Your task to perform on an android device: install app "Expedia: Hotels, Flights & Car" Image 0: 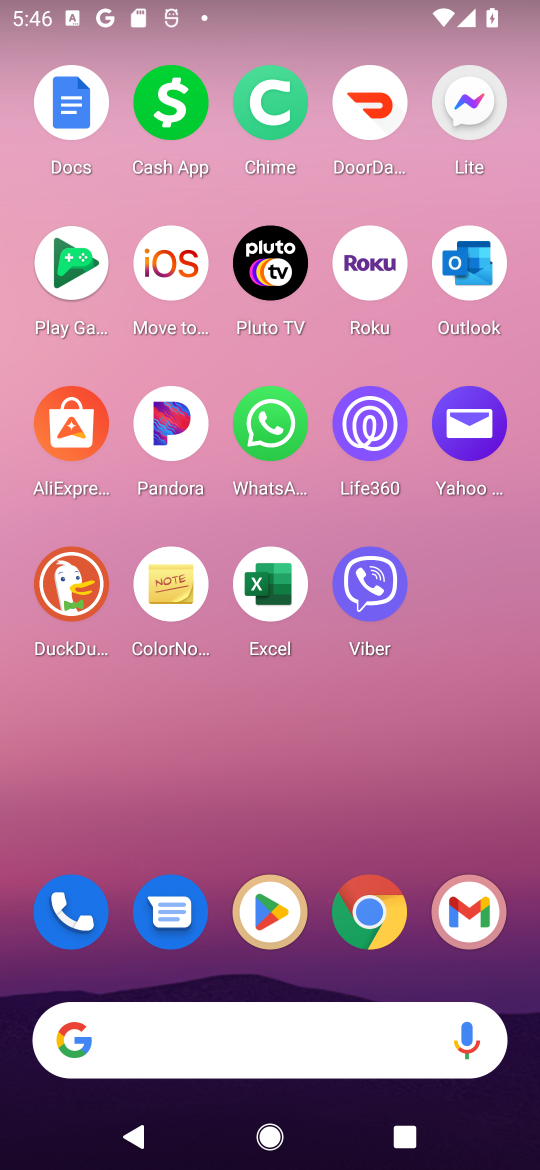
Step 0: click (262, 904)
Your task to perform on an android device: install app "Expedia: Hotels, Flights & Car" Image 1: 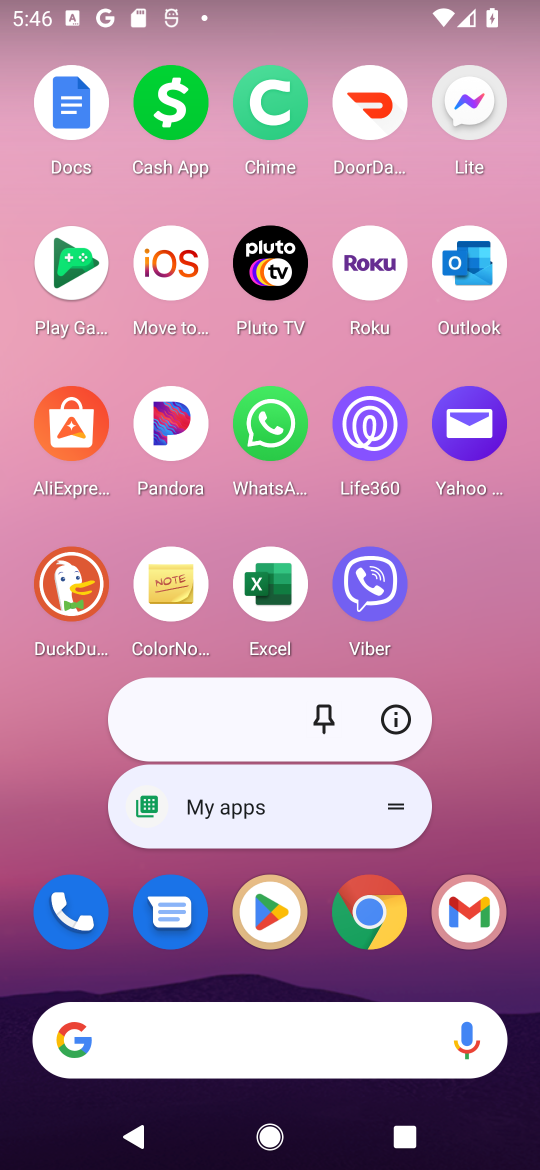
Step 1: click (461, 623)
Your task to perform on an android device: install app "Expedia: Hotels, Flights & Car" Image 2: 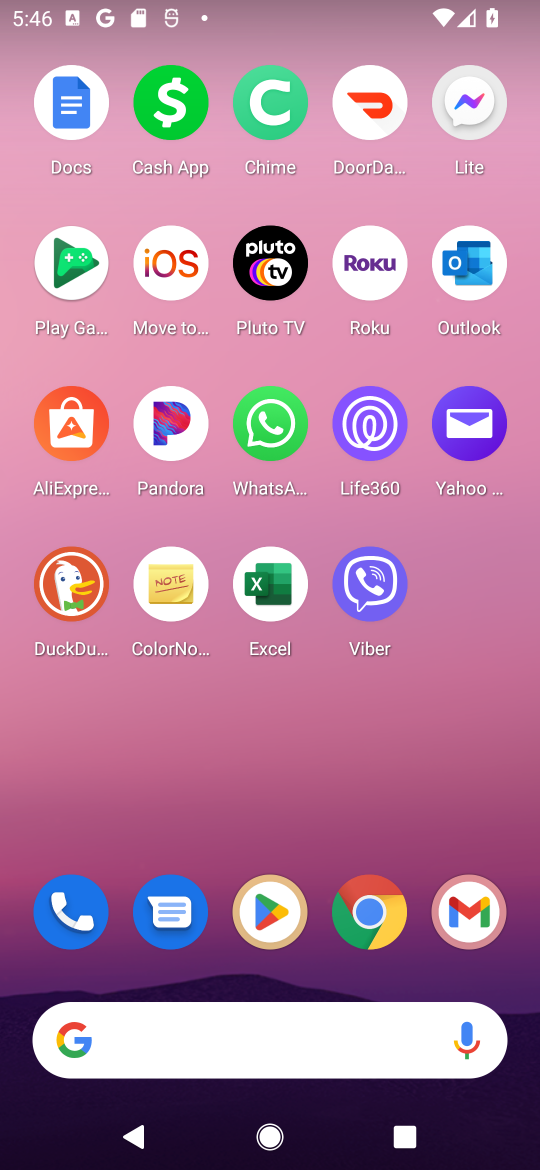
Step 2: click (278, 904)
Your task to perform on an android device: install app "Expedia: Hotels, Flights & Car" Image 3: 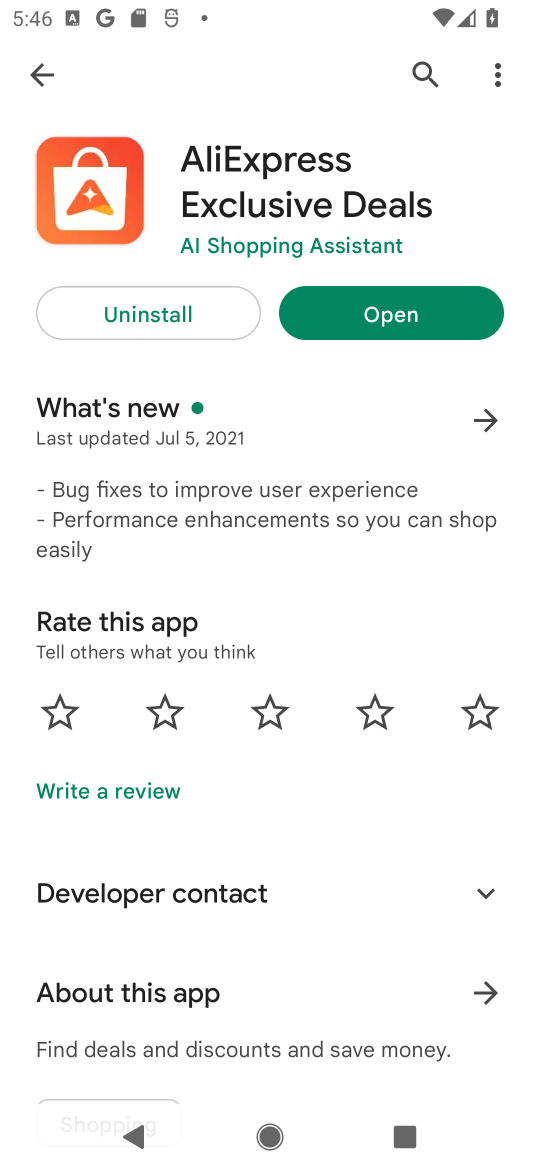
Step 3: click (35, 84)
Your task to perform on an android device: install app "Expedia: Hotels, Flights & Car" Image 4: 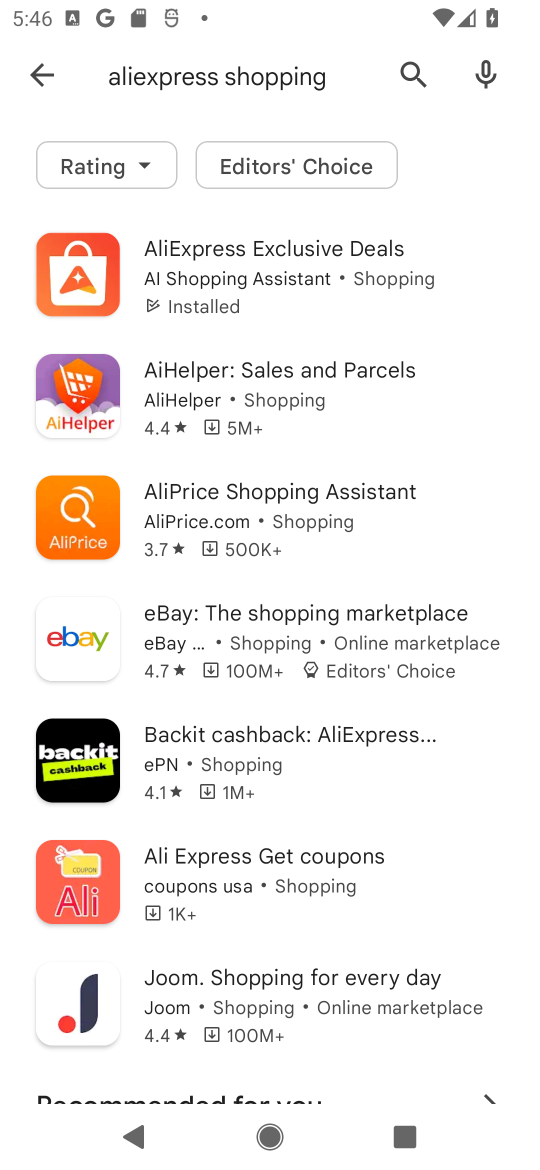
Step 4: click (44, 68)
Your task to perform on an android device: install app "Expedia: Hotels, Flights & Car" Image 5: 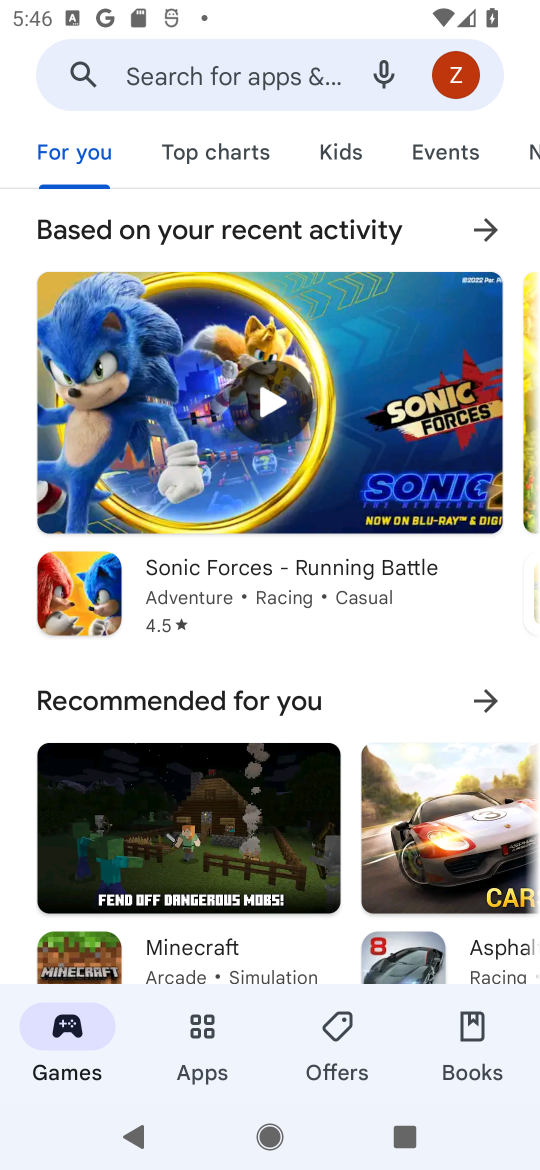
Step 5: click (212, 79)
Your task to perform on an android device: install app "Expedia: Hotels, Flights & Car" Image 6: 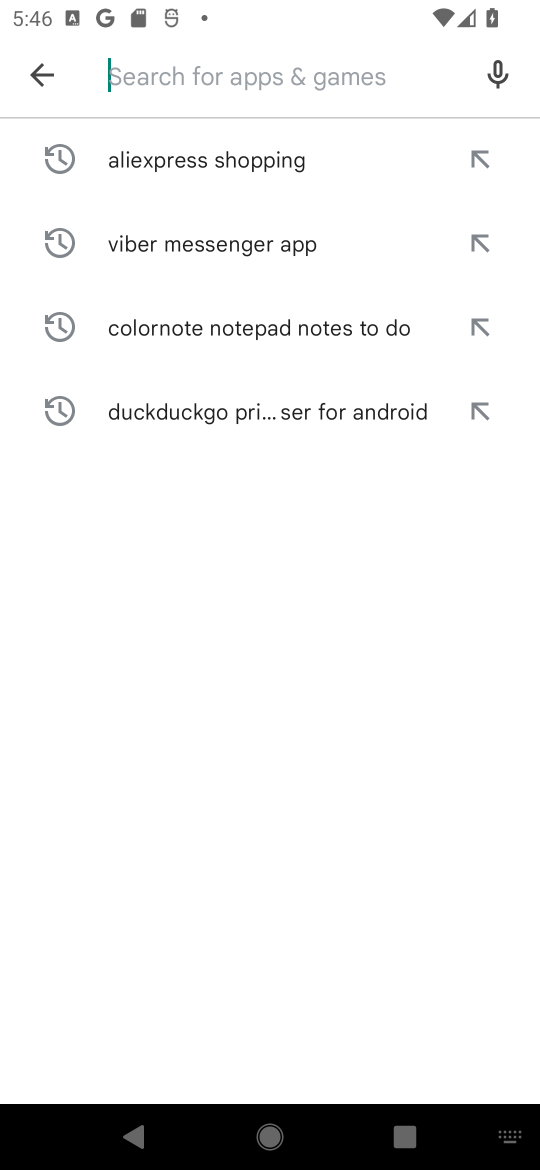
Step 6: type "Expedia: Hotels, Flights & Car "
Your task to perform on an android device: install app "Expedia: Hotels, Flights & Car" Image 7: 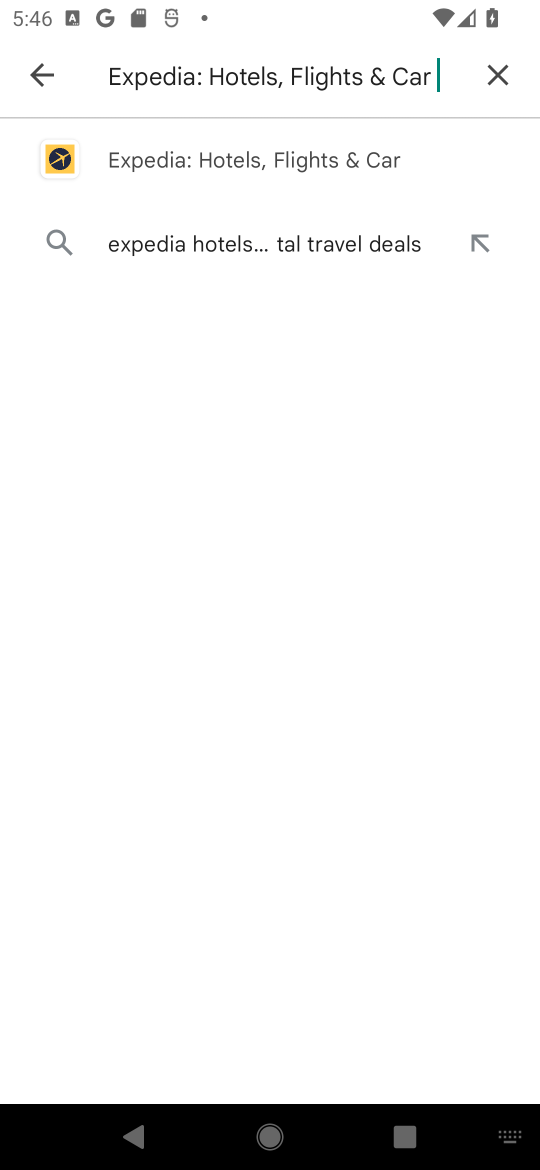
Step 7: click (306, 147)
Your task to perform on an android device: install app "Expedia: Hotels, Flights & Car" Image 8: 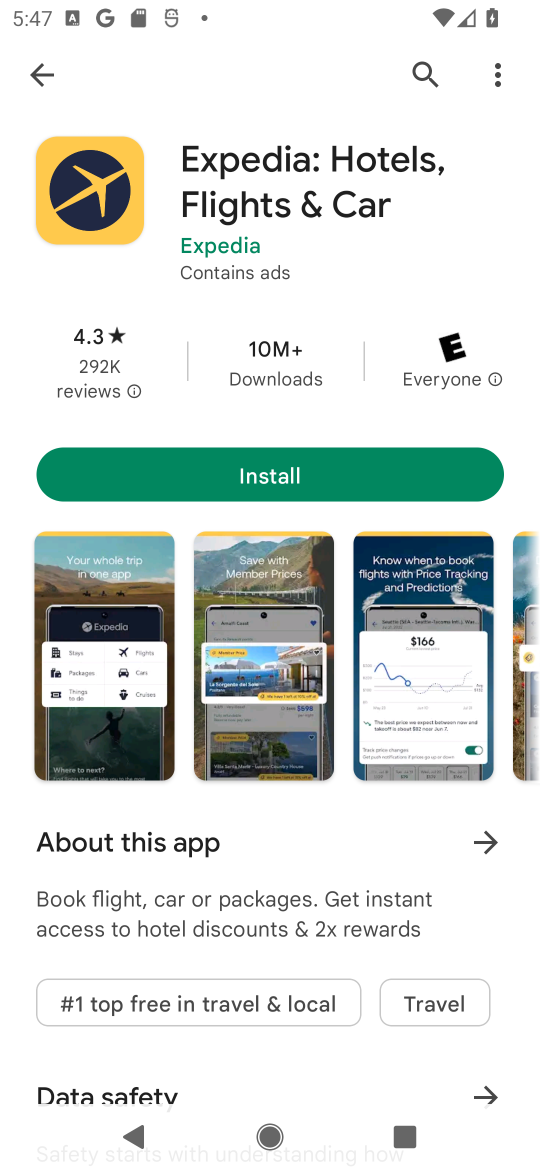
Step 8: click (271, 464)
Your task to perform on an android device: install app "Expedia: Hotels, Flights & Car" Image 9: 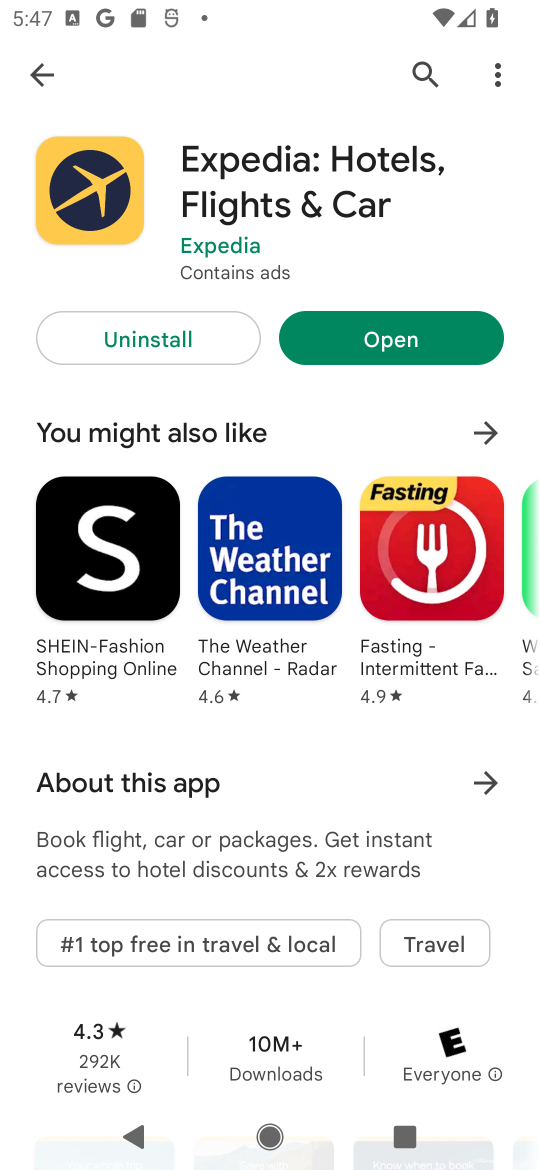
Step 9: click (334, 347)
Your task to perform on an android device: install app "Expedia: Hotels, Flights & Car" Image 10: 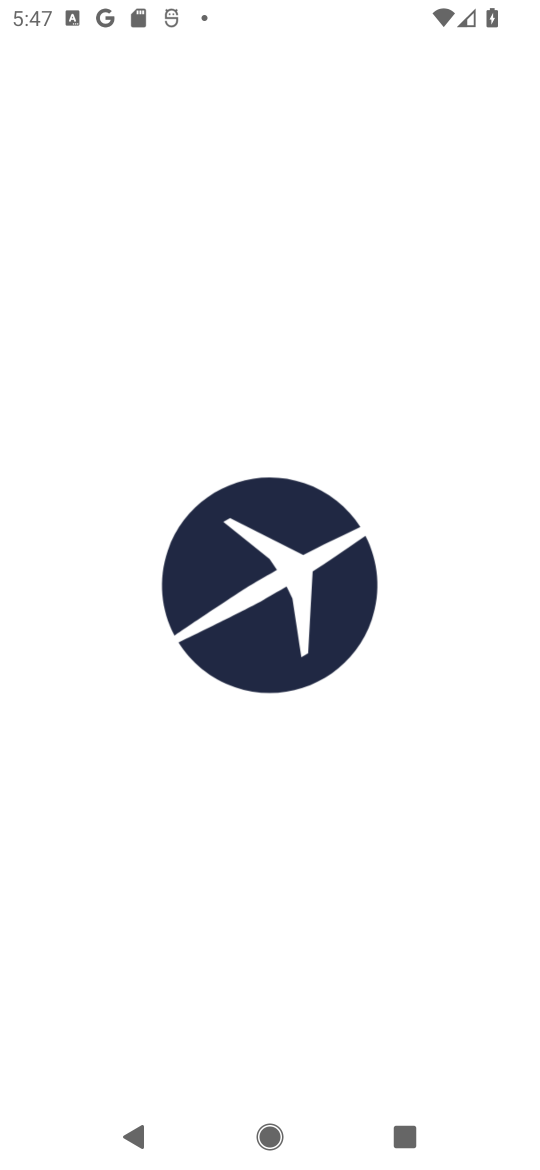
Step 10: task complete